Your task to perform on an android device: see creations saved in the google photos Image 0: 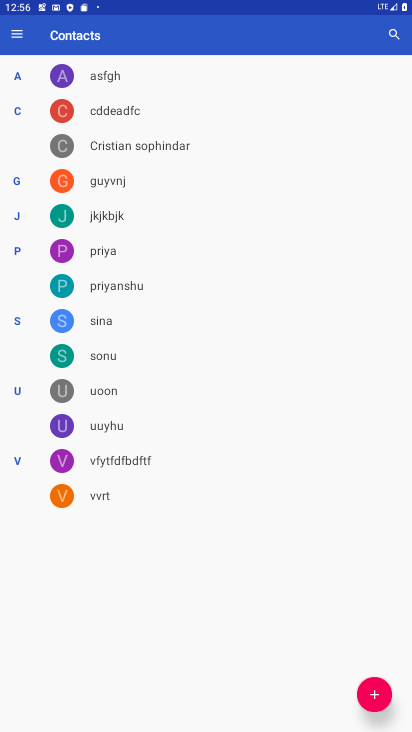
Step 0: press home button
Your task to perform on an android device: see creations saved in the google photos Image 1: 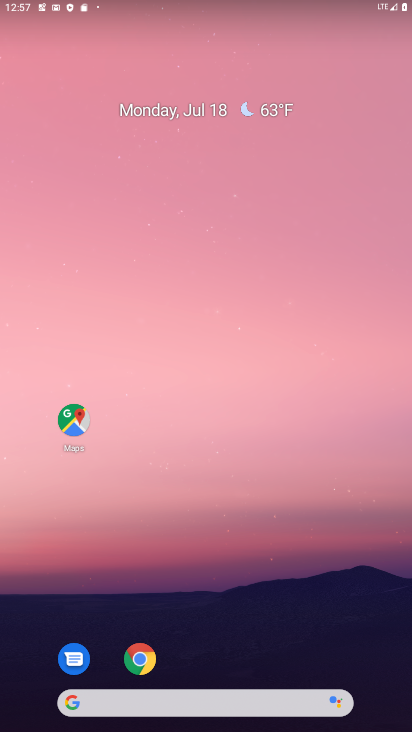
Step 1: drag from (238, 682) to (281, 212)
Your task to perform on an android device: see creations saved in the google photos Image 2: 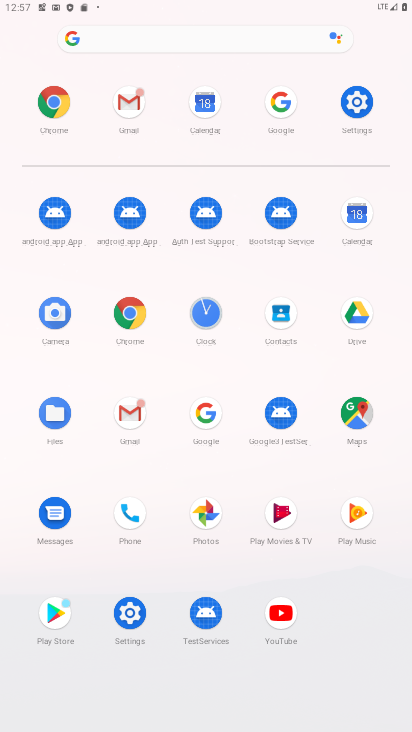
Step 2: click (205, 509)
Your task to perform on an android device: see creations saved in the google photos Image 3: 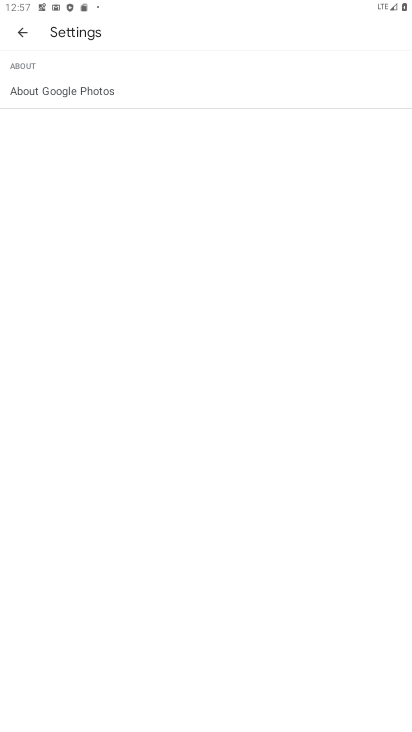
Step 3: click (19, 27)
Your task to perform on an android device: see creations saved in the google photos Image 4: 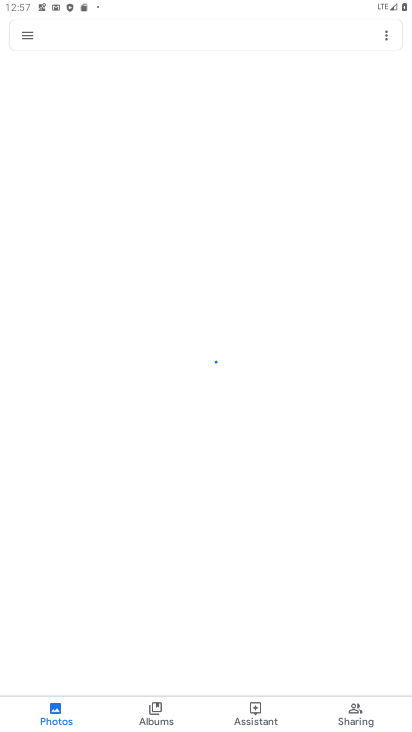
Step 4: click (162, 706)
Your task to perform on an android device: see creations saved in the google photos Image 5: 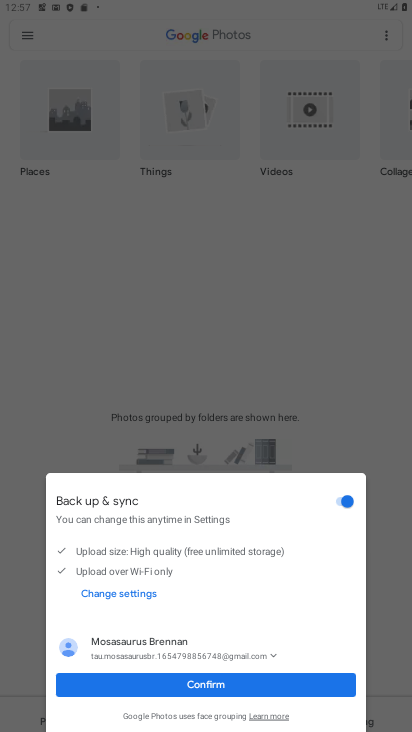
Step 5: click (195, 679)
Your task to perform on an android device: see creations saved in the google photos Image 6: 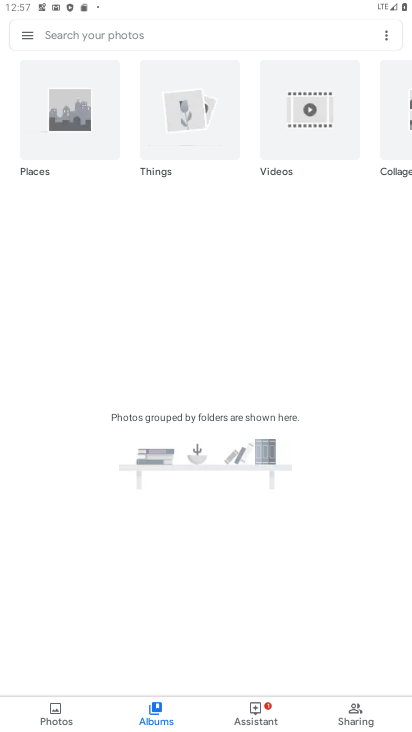
Step 6: task complete